Your task to perform on an android device: Go to eBay Image 0: 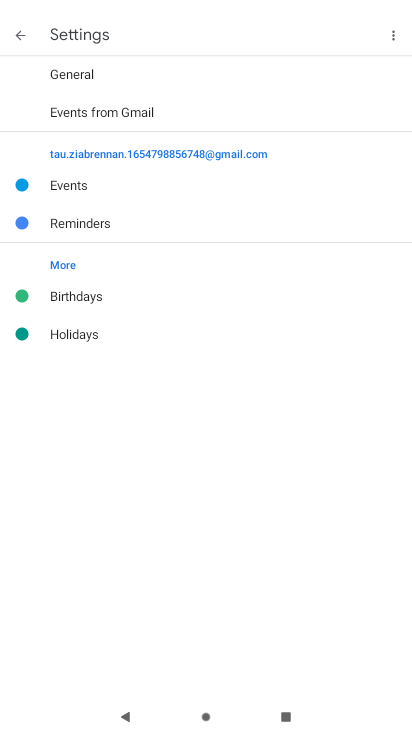
Step 0: press home button
Your task to perform on an android device: Go to eBay Image 1: 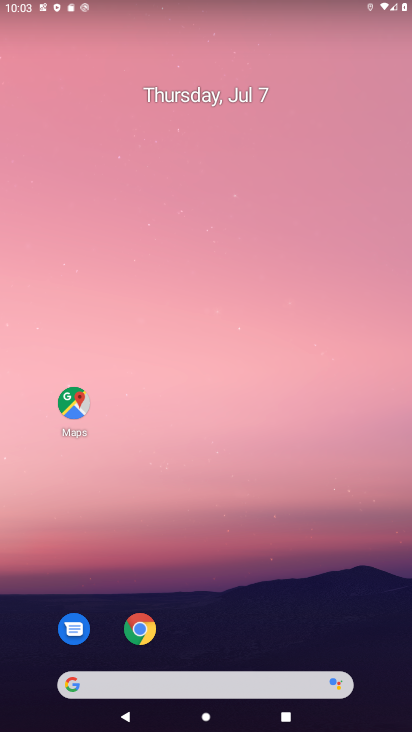
Step 1: click (137, 630)
Your task to perform on an android device: Go to eBay Image 2: 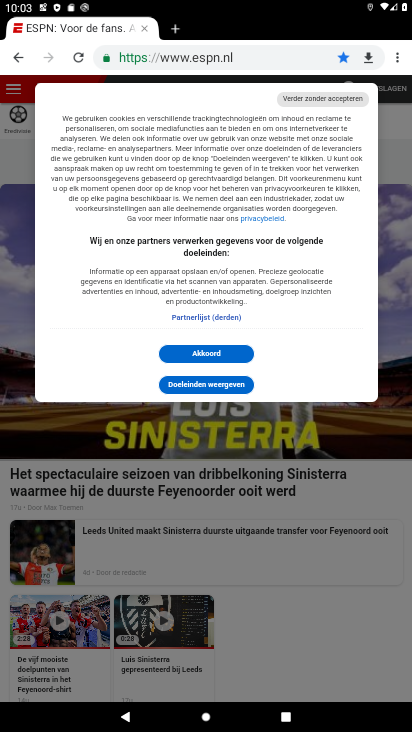
Step 2: click (252, 54)
Your task to perform on an android device: Go to eBay Image 3: 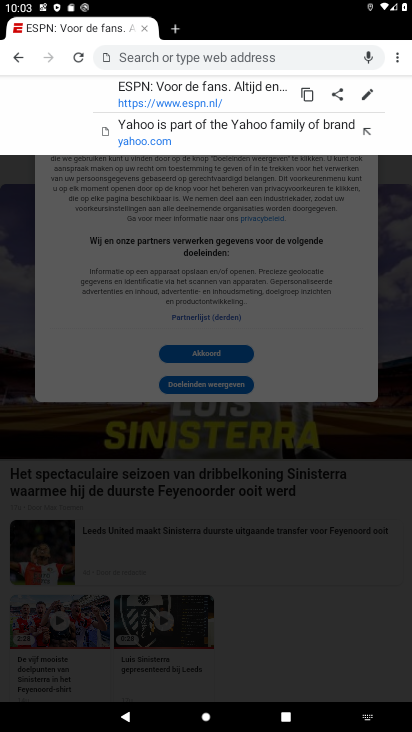
Step 3: type "eBay"
Your task to perform on an android device: Go to eBay Image 4: 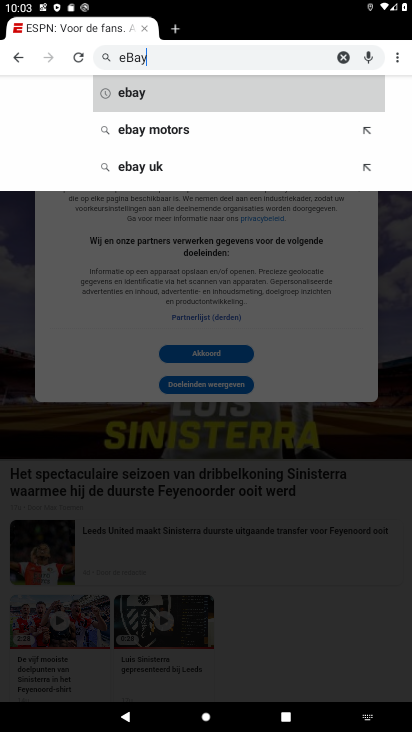
Step 4: click (133, 87)
Your task to perform on an android device: Go to eBay Image 5: 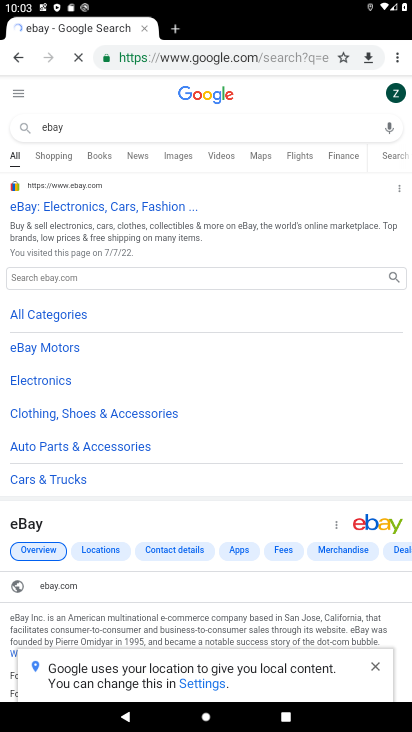
Step 5: click (68, 193)
Your task to perform on an android device: Go to eBay Image 6: 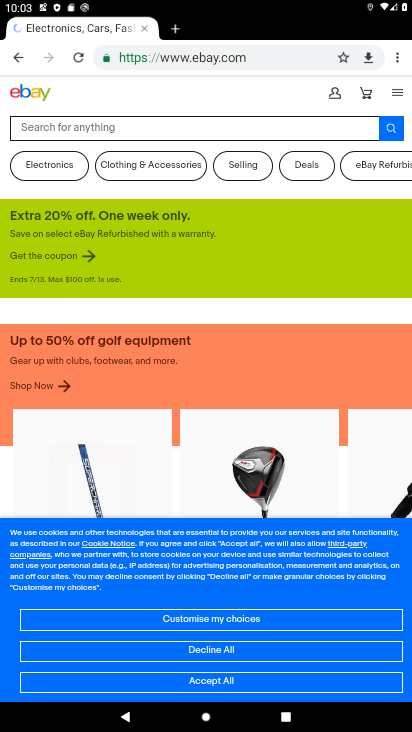
Step 6: task complete